Your task to perform on an android device: What's the weather going to be this weekend? Image 0: 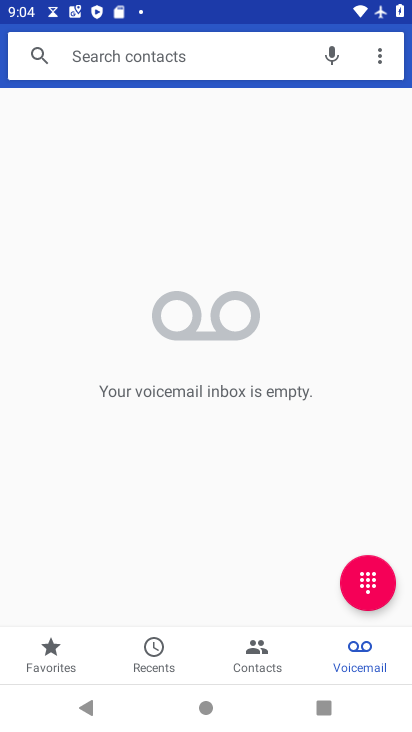
Step 0: press home button
Your task to perform on an android device: What's the weather going to be this weekend? Image 1: 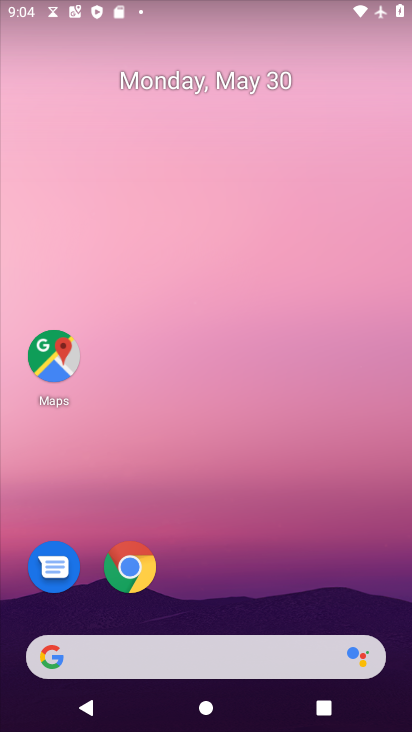
Step 1: drag from (233, 623) to (197, 223)
Your task to perform on an android device: What's the weather going to be this weekend? Image 2: 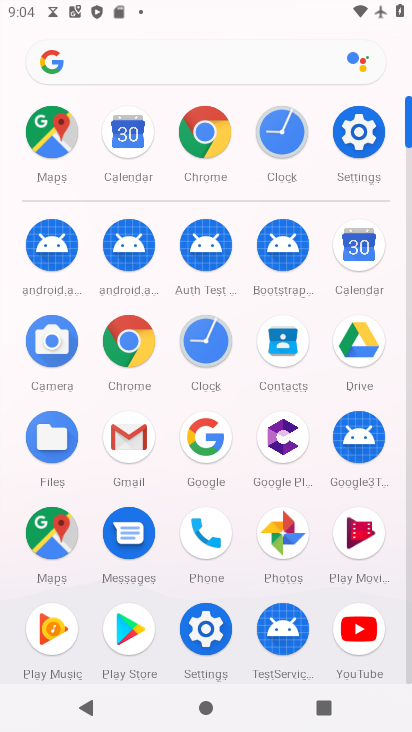
Step 2: click (223, 151)
Your task to perform on an android device: What's the weather going to be this weekend? Image 3: 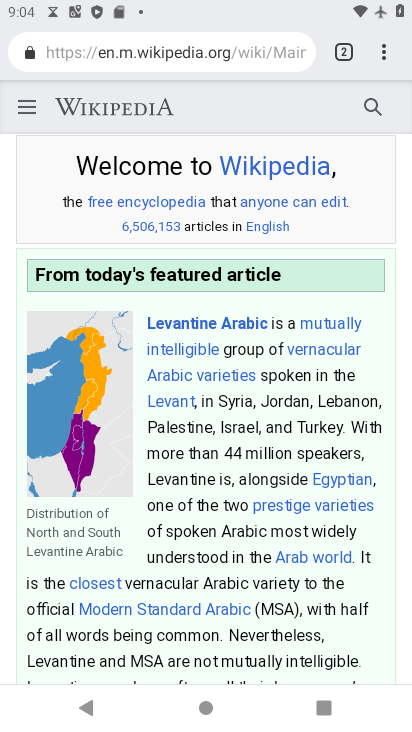
Step 3: click (202, 68)
Your task to perform on an android device: What's the weather going to be this weekend? Image 4: 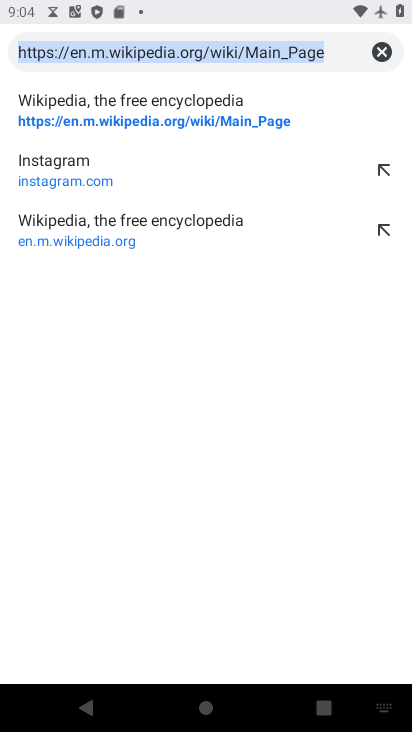
Step 4: type "What's the weather going to be this weekend?"
Your task to perform on an android device: What's the weather going to be this weekend? Image 5: 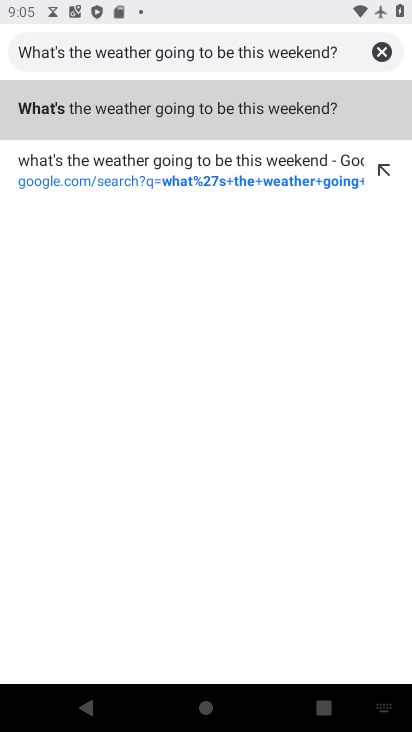
Step 5: click (321, 113)
Your task to perform on an android device: What's the weather going to be this weekend? Image 6: 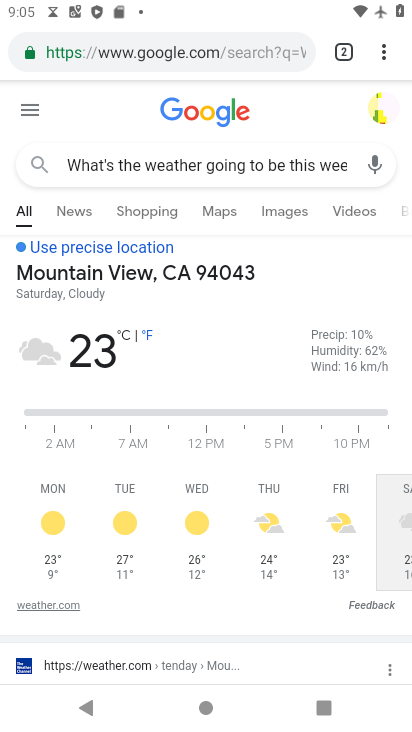
Step 6: task complete